Your task to perform on an android device: What's on my calendar today? Image 0: 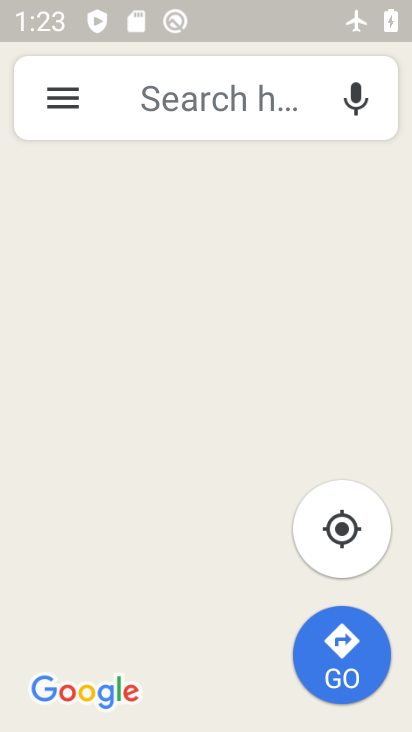
Step 0: drag from (378, 469) to (354, 151)
Your task to perform on an android device: What's on my calendar today? Image 1: 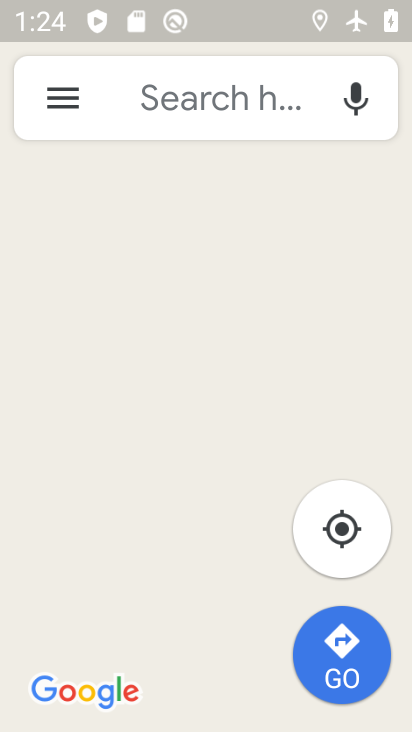
Step 1: press home button
Your task to perform on an android device: What's on my calendar today? Image 2: 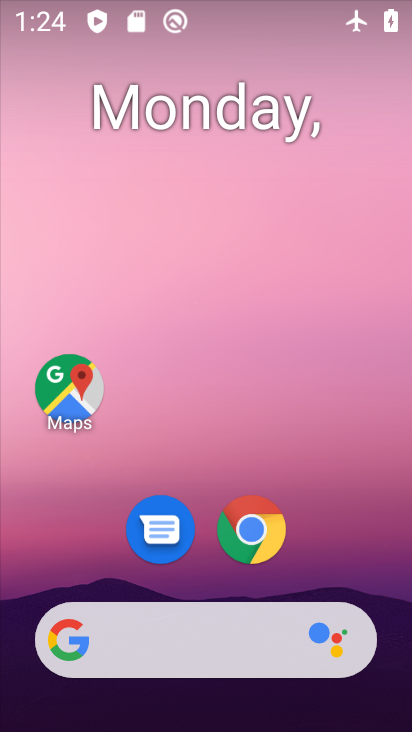
Step 2: drag from (382, 512) to (309, 2)
Your task to perform on an android device: What's on my calendar today? Image 3: 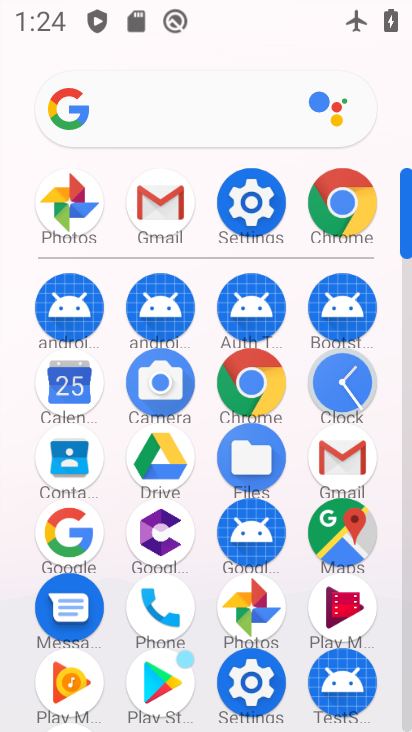
Step 3: click (45, 430)
Your task to perform on an android device: What's on my calendar today? Image 4: 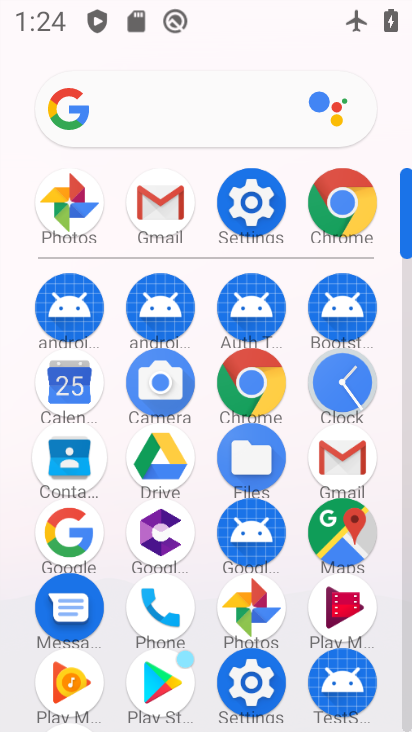
Step 4: click (56, 404)
Your task to perform on an android device: What's on my calendar today? Image 5: 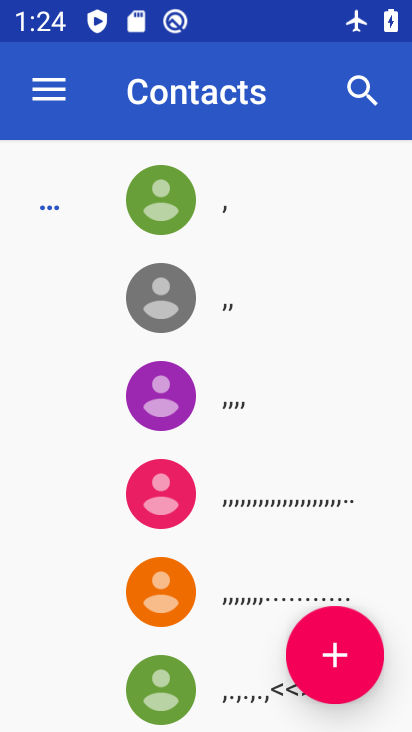
Step 5: press home button
Your task to perform on an android device: What's on my calendar today? Image 6: 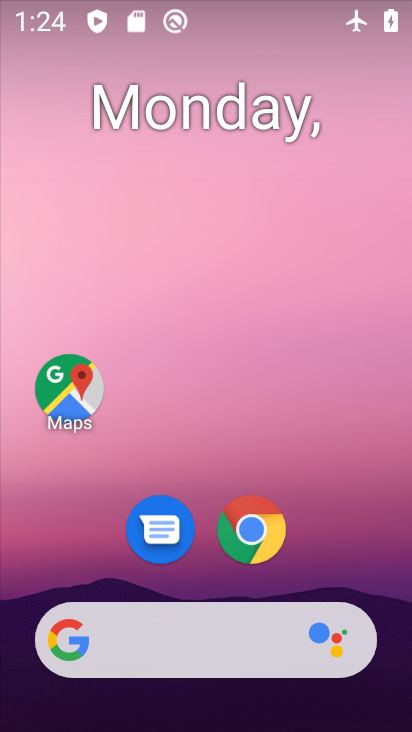
Step 6: drag from (353, 295) to (366, 56)
Your task to perform on an android device: What's on my calendar today? Image 7: 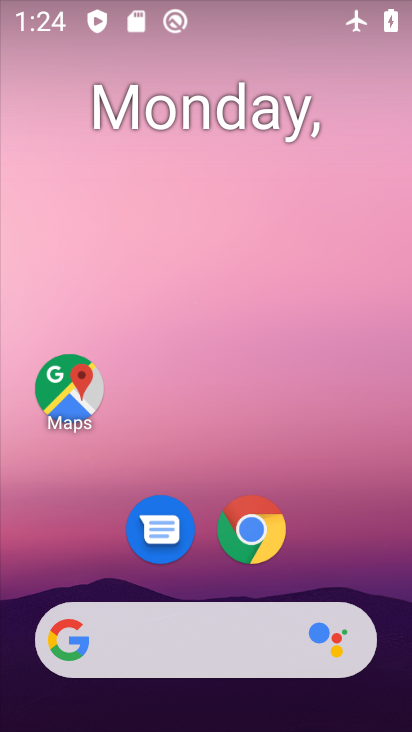
Step 7: click (359, 77)
Your task to perform on an android device: What's on my calendar today? Image 8: 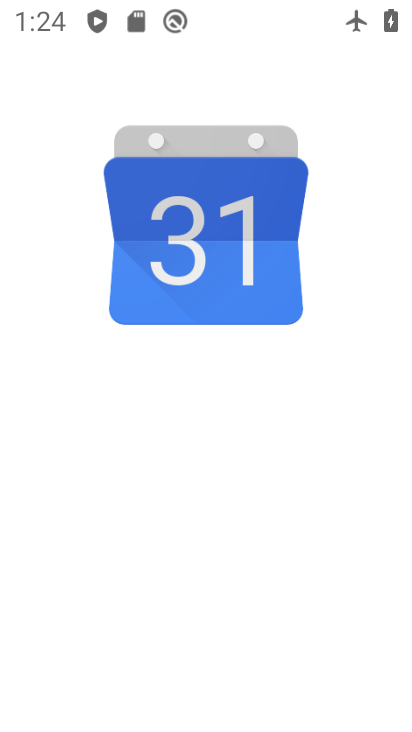
Step 8: drag from (361, 544) to (379, 76)
Your task to perform on an android device: What's on my calendar today? Image 9: 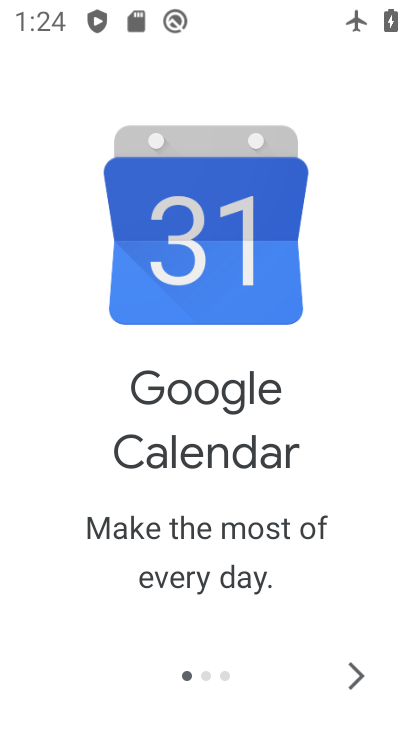
Step 9: click (343, 687)
Your task to perform on an android device: What's on my calendar today? Image 10: 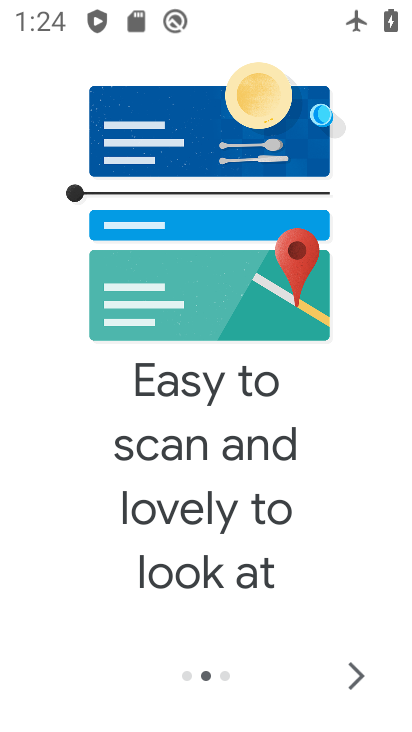
Step 10: click (343, 687)
Your task to perform on an android device: What's on my calendar today? Image 11: 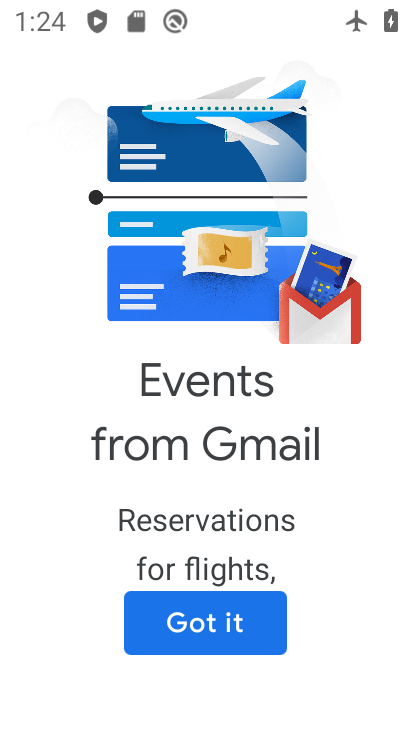
Step 11: click (204, 629)
Your task to perform on an android device: What's on my calendar today? Image 12: 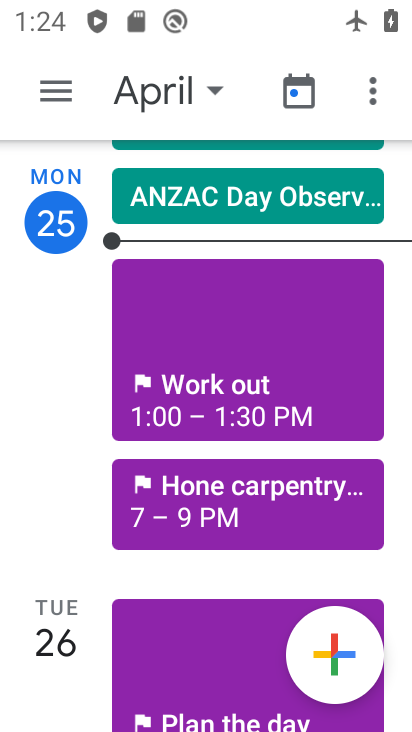
Step 12: click (163, 89)
Your task to perform on an android device: What's on my calendar today? Image 13: 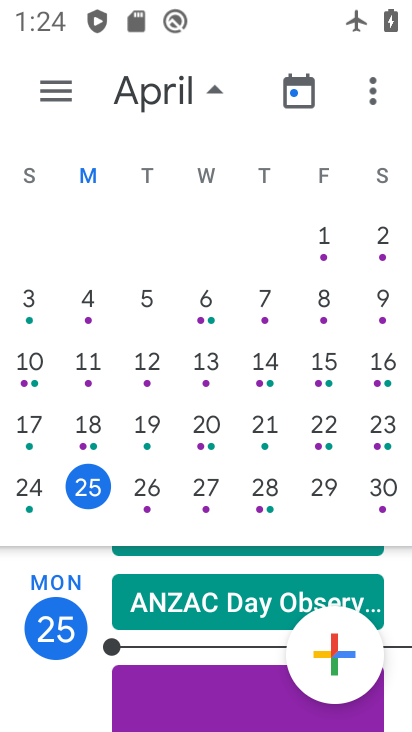
Step 13: task complete